Your task to perform on an android device: uninstall "Reddit" Image 0: 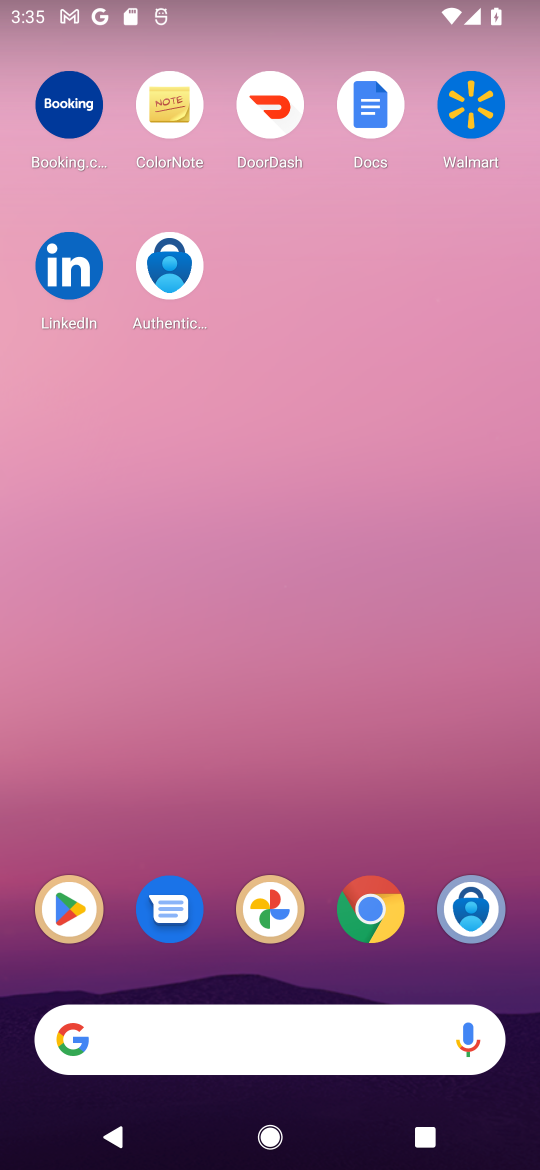
Step 0: click (65, 926)
Your task to perform on an android device: uninstall "Reddit" Image 1: 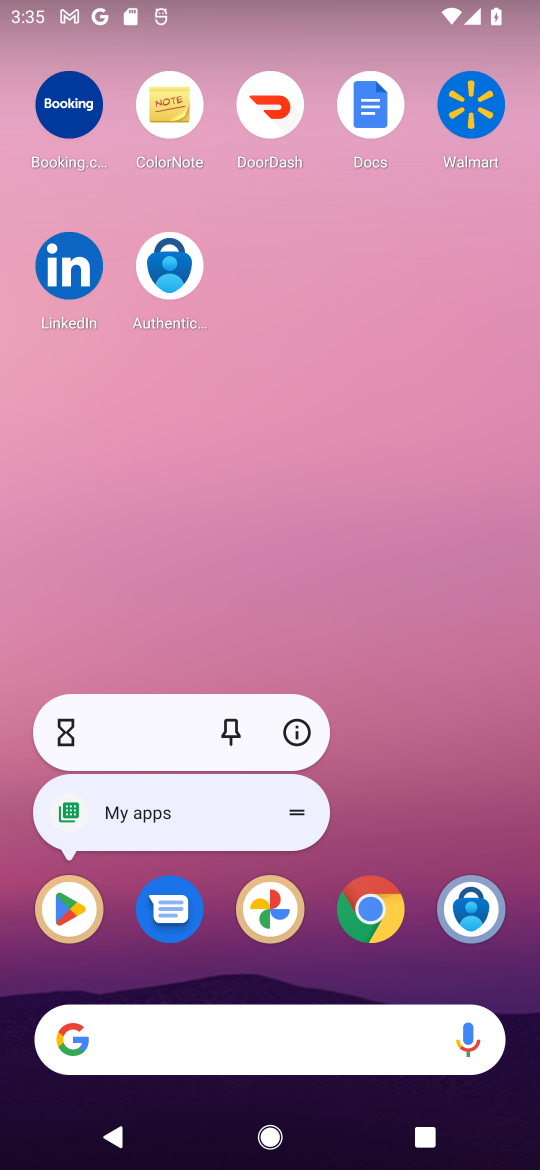
Step 1: click (285, 730)
Your task to perform on an android device: uninstall "Reddit" Image 2: 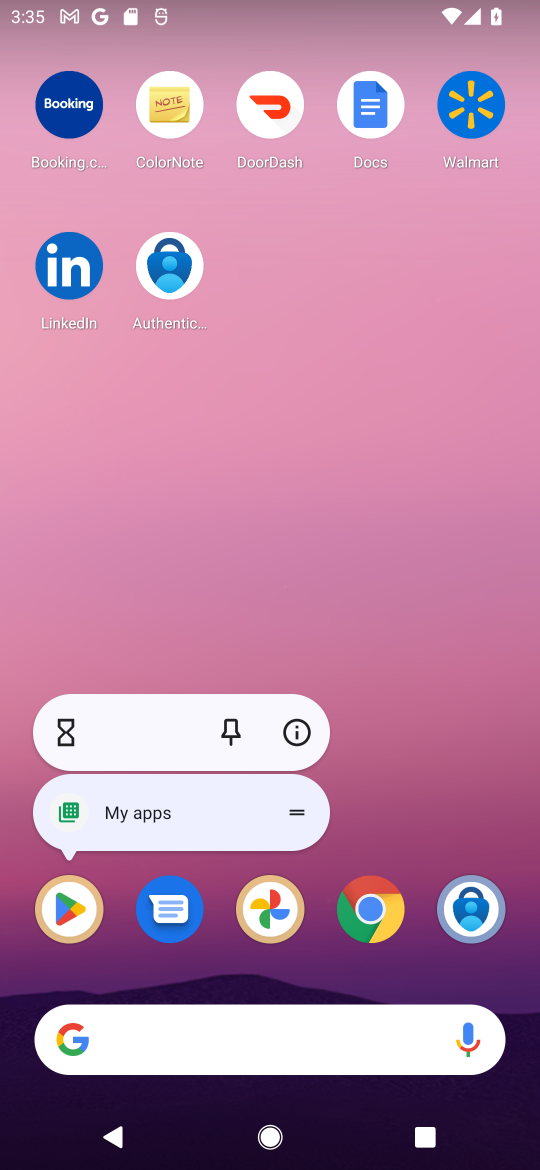
Step 2: click (301, 728)
Your task to perform on an android device: uninstall "Reddit" Image 3: 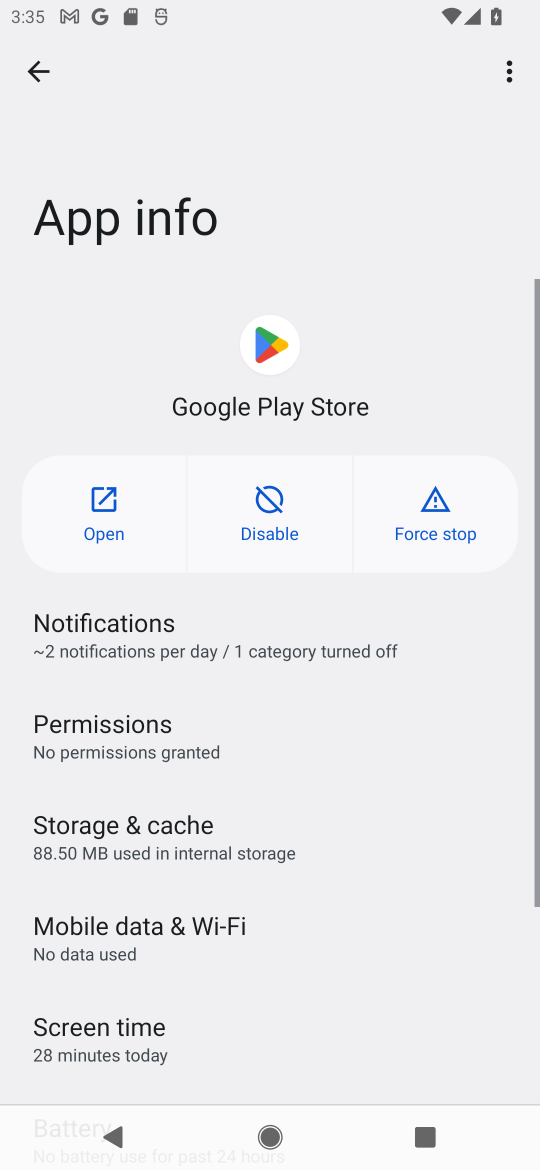
Step 3: click (111, 517)
Your task to perform on an android device: uninstall "Reddit" Image 4: 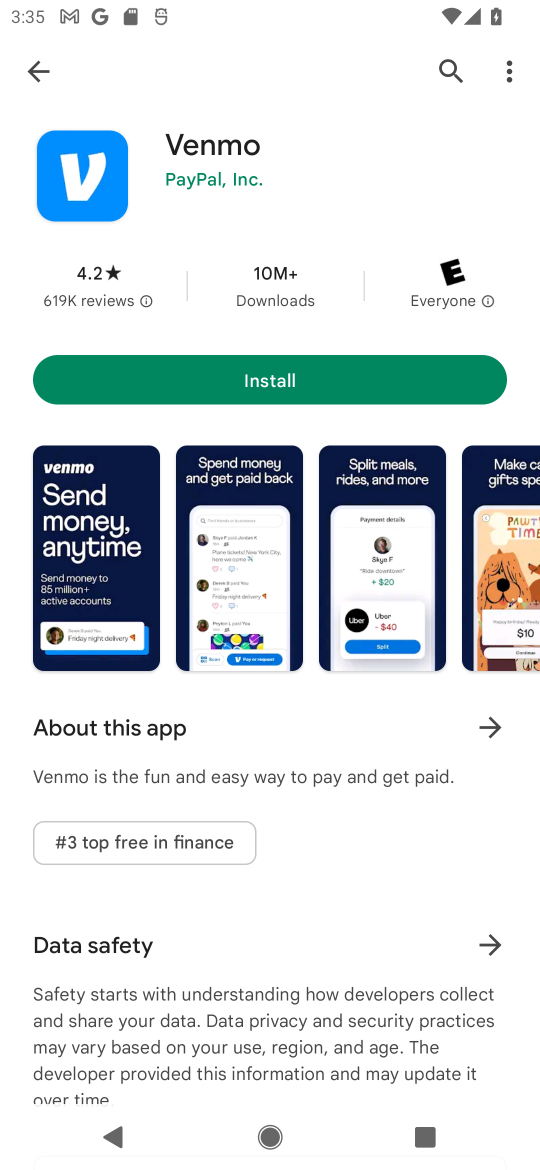
Step 4: drag from (301, 193) to (378, 709)
Your task to perform on an android device: uninstall "Reddit" Image 5: 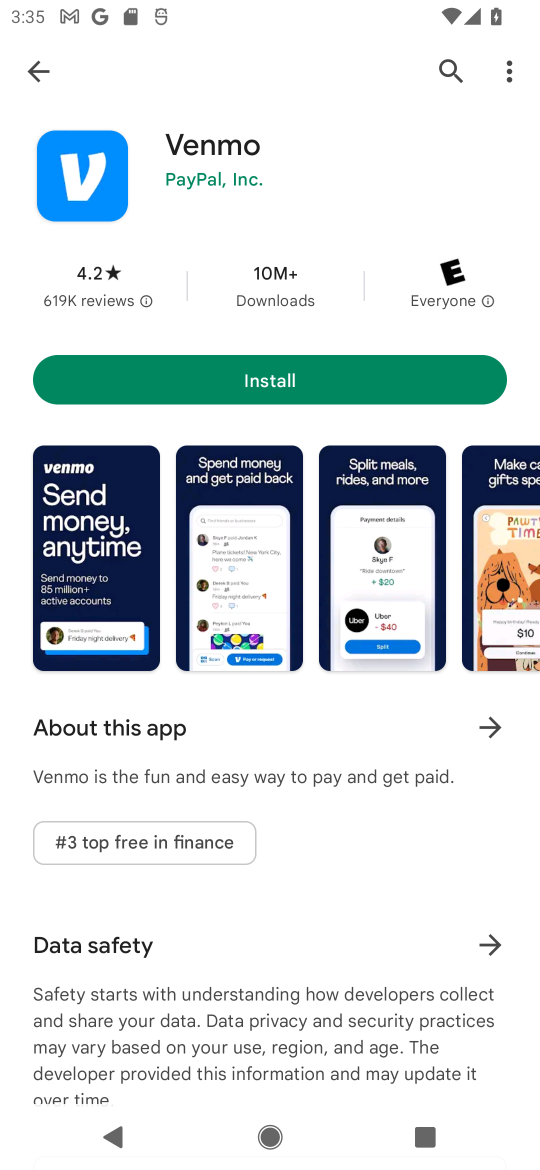
Step 5: click (456, 71)
Your task to perform on an android device: uninstall "Reddit" Image 6: 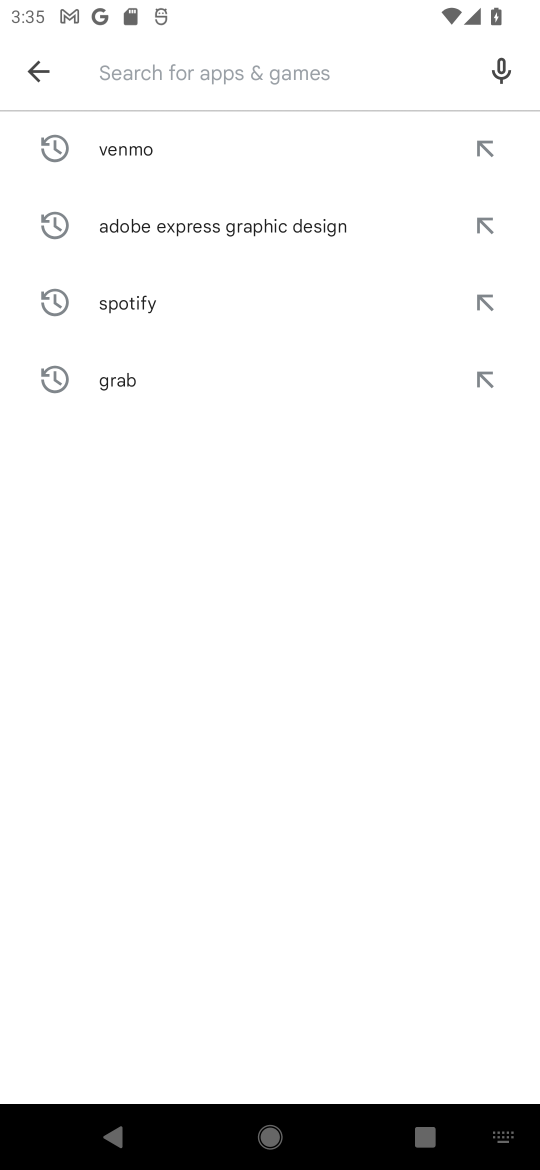
Step 6: click (201, 72)
Your task to perform on an android device: uninstall "Reddit" Image 7: 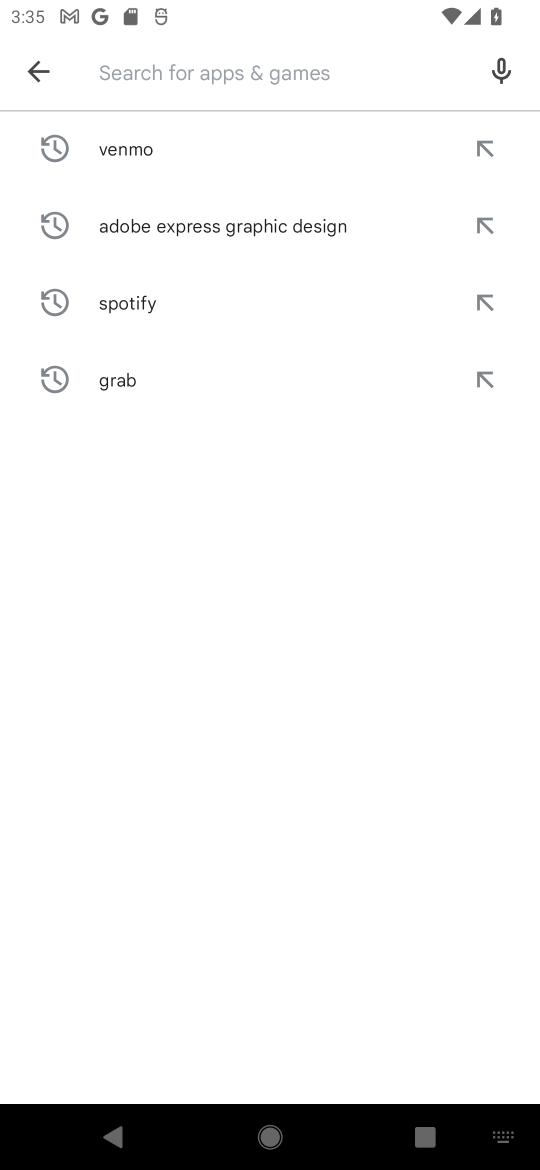
Step 7: type "Reddit"
Your task to perform on an android device: uninstall "Reddit" Image 8: 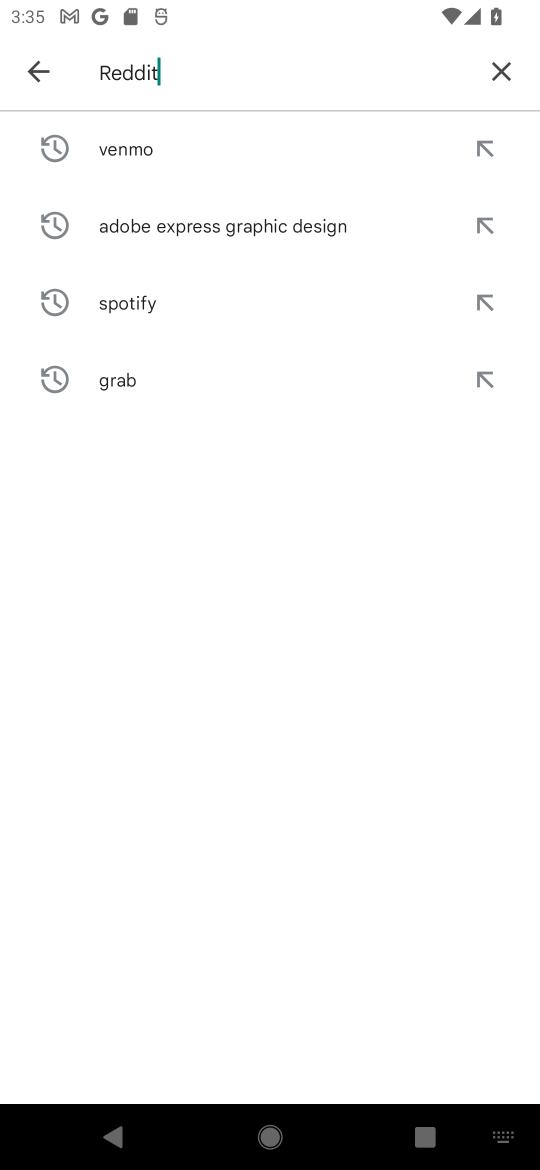
Step 8: type ""
Your task to perform on an android device: uninstall "Reddit" Image 9: 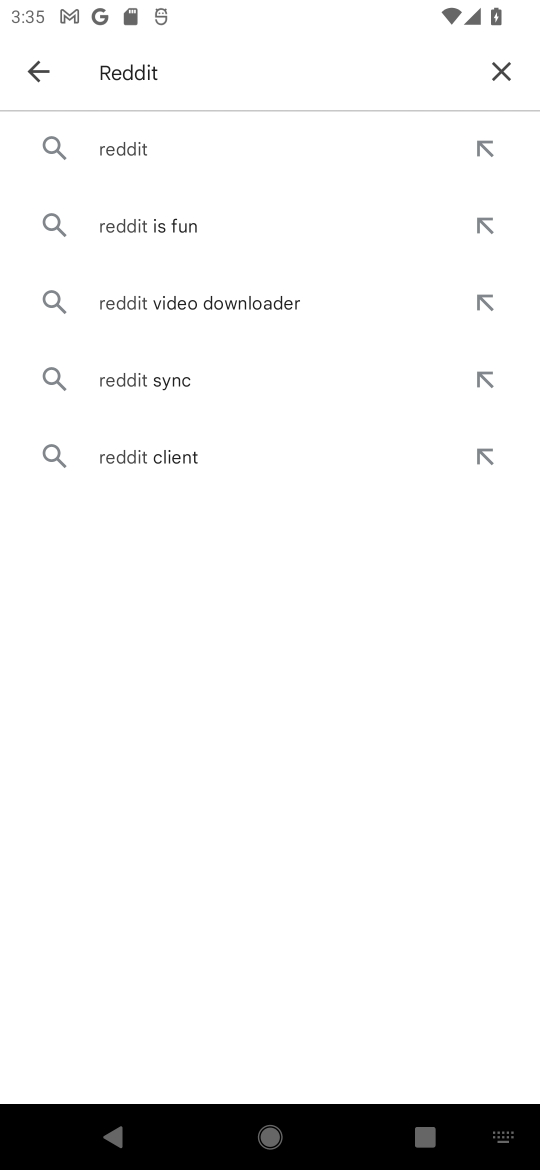
Step 9: click (127, 148)
Your task to perform on an android device: uninstall "Reddit" Image 10: 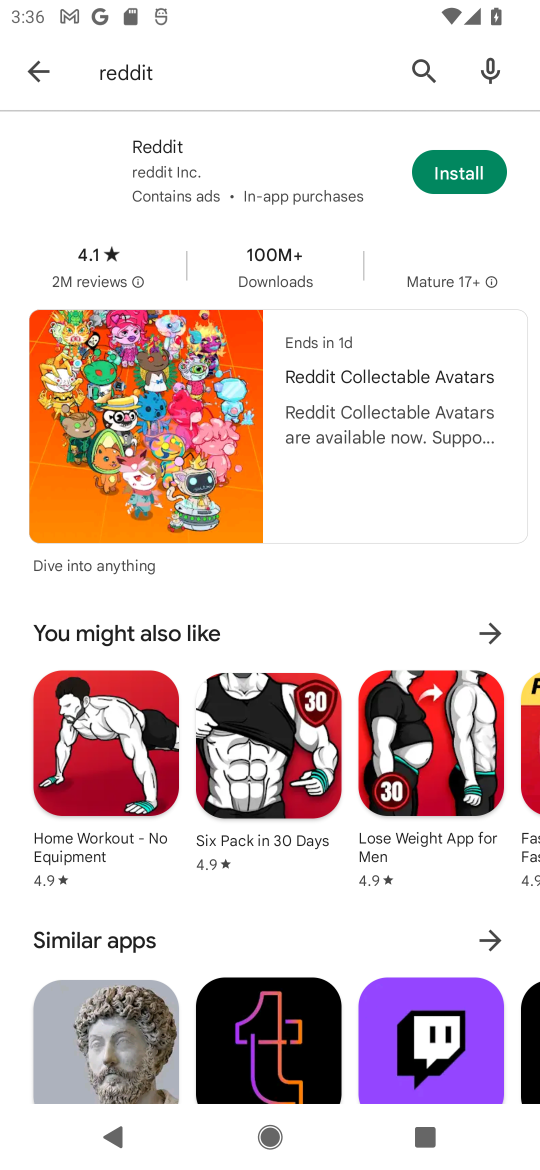
Step 10: click (181, 134)
Your task to perform on an android device: uninstall "Reddit" Image 11: 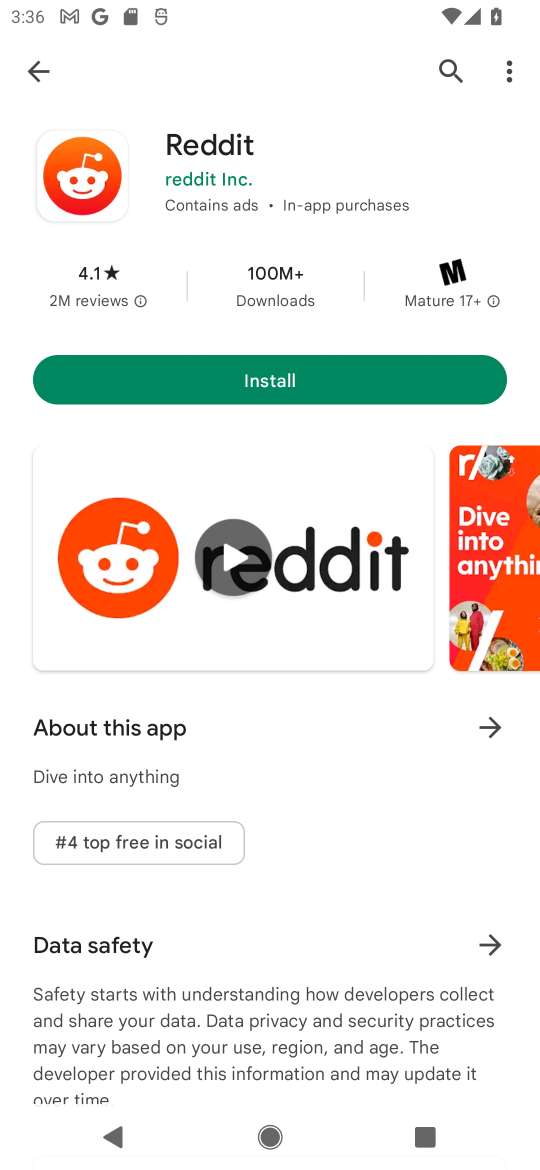
Step 11: click (222, 157)
Your task to perform on an android device: uninstall "Reddit" Image 12: 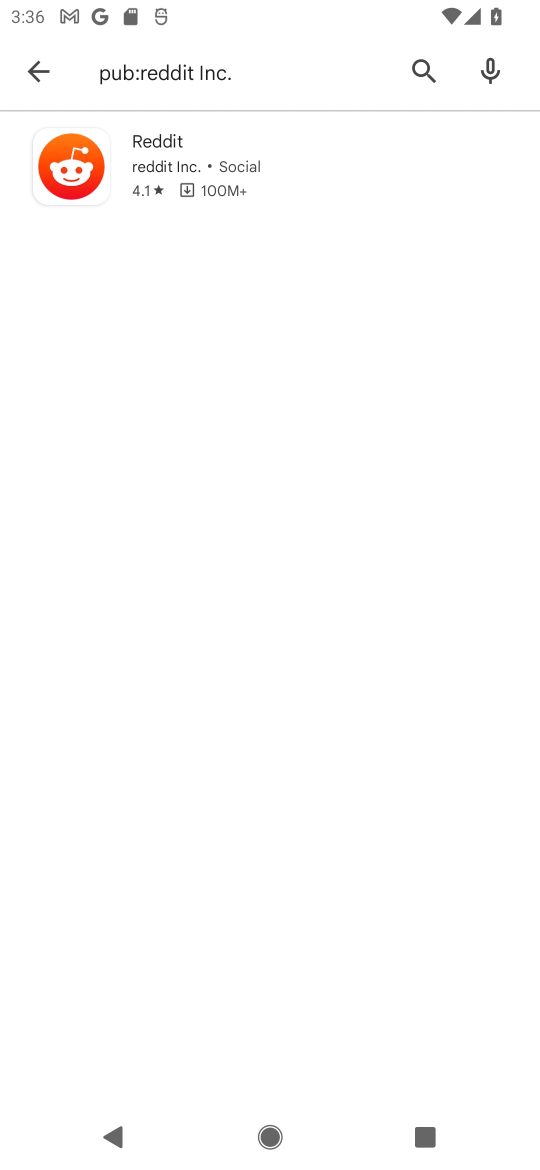
Step 12: click (191, 147)
Your task to perform on an android device: uninstall "Reddit" Image 13: 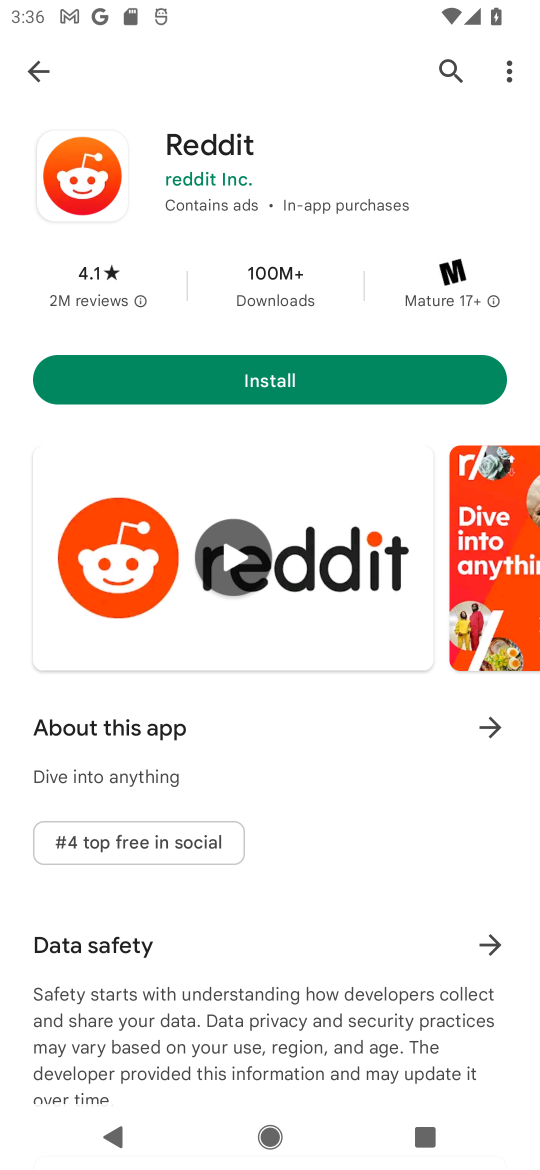
Step 13: task complete